Your task to perform on an android device: Open location settings Image 0: 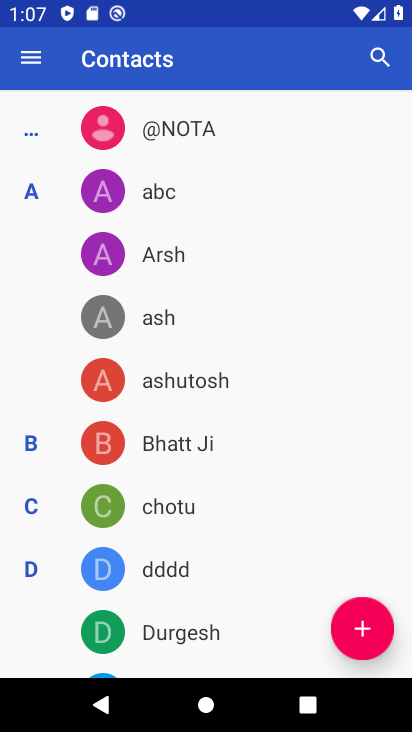
Step 0: press home button
Your task to perform on an android device: Open location settings Image 1: 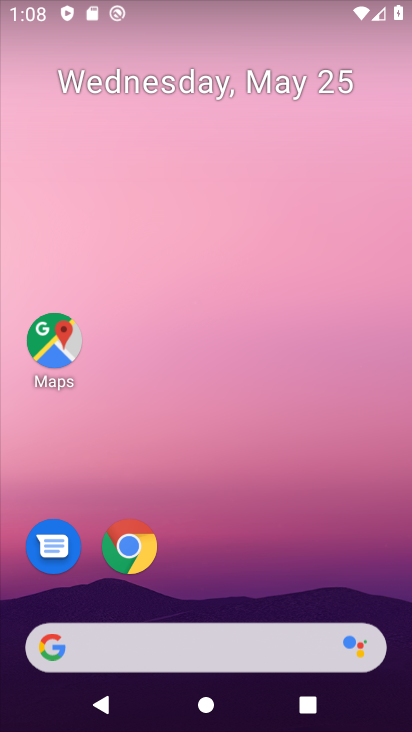
Step 1: drag from (375, 562) to (372, 130)
Your task to perform on an android device: Open location settings Image 2: 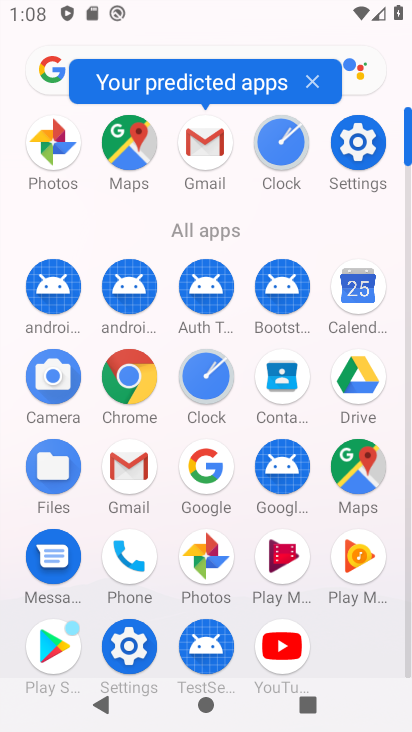
Step 2: click (369, 151)
Your task to perform on an android device: Open location settings Image 3: 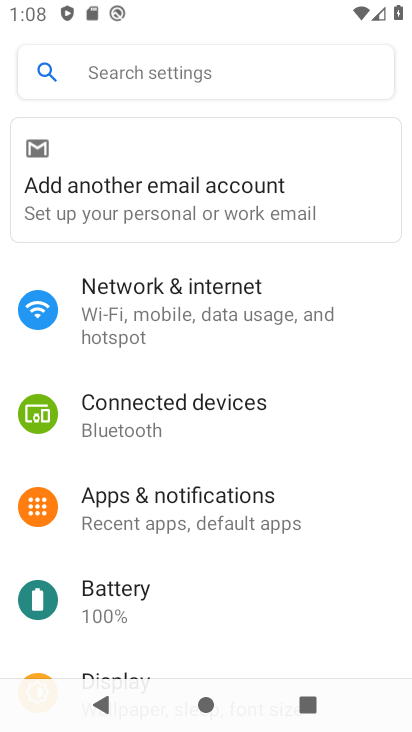
Step 3: drag from (345, 546) to (348, 377)
Your task to perform on an android device: Open location settings Image 4: 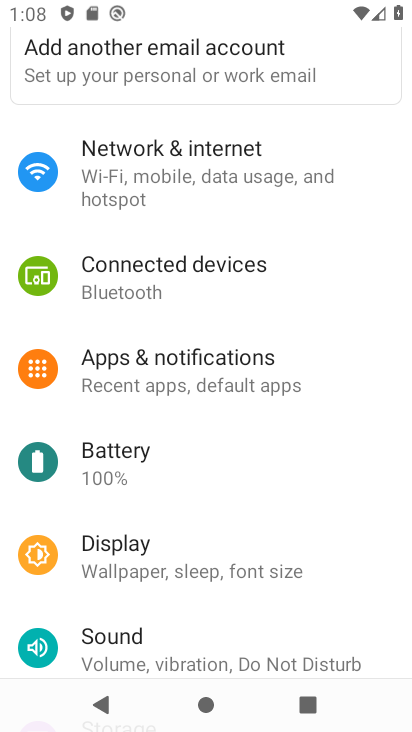
Step 4: drag from (355, 588) to (347, 411)
Your task to perform on an android device: Open location settings Image 5: 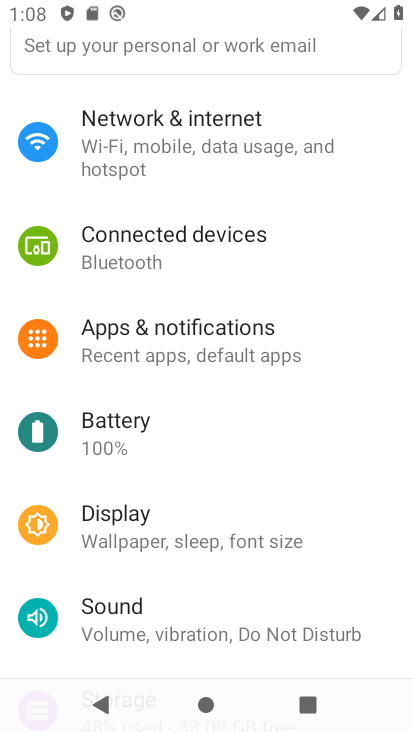
Step 5: drag from (361, 638) to (359, 441)
Your task to perform on an android device: Open location settings Image 6: 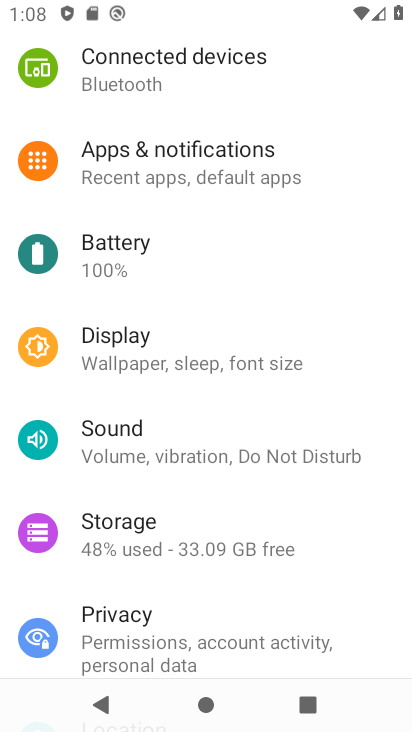
Step 6: drag from (360, 622) to (370, 432)
Your task to perform on an android device: Open location settings Image 7: 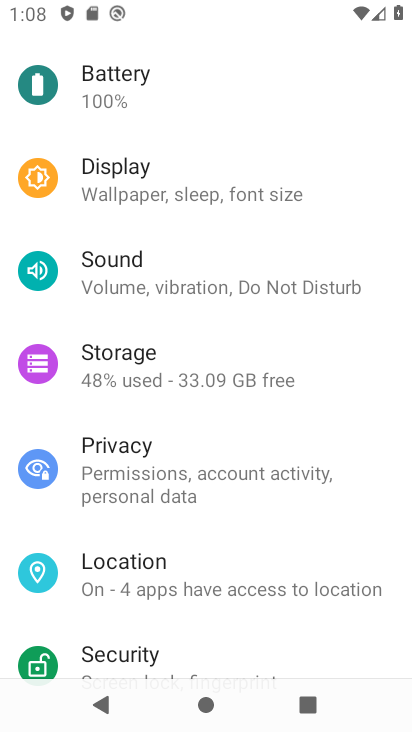
Step 7: drag from (357, 629) to (367, 439)
Your task to perform on an android device: Open location settings Image 8: 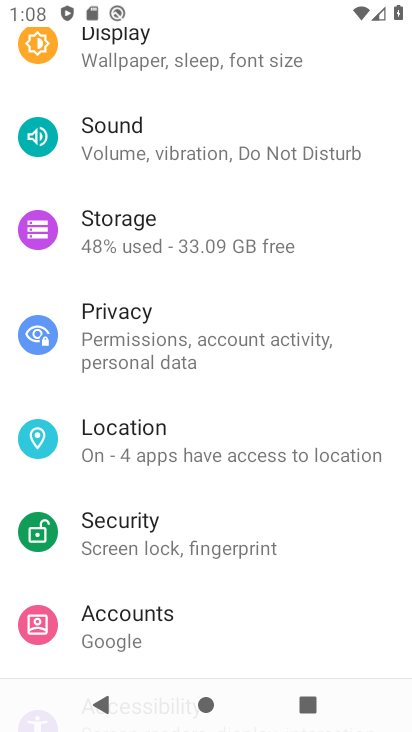
Step 8: drag from (357, 617) to (366, 405)
Your task to perform on an android device: Open location settings Image 9: 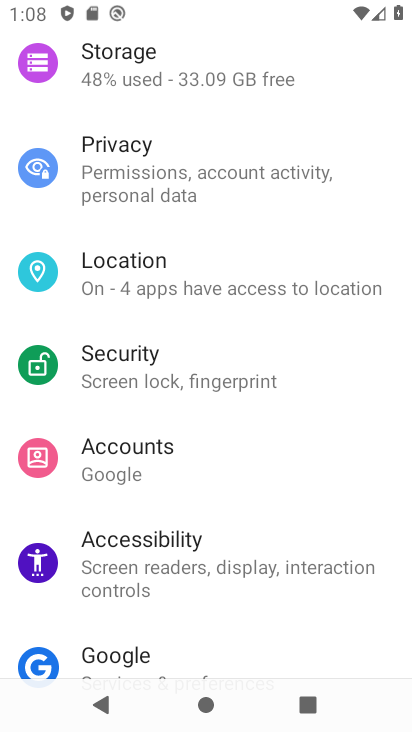
Step 9: drag from (352, 624) to (367, 403)
Your task to perform on an android device: Open location settings Image 10: 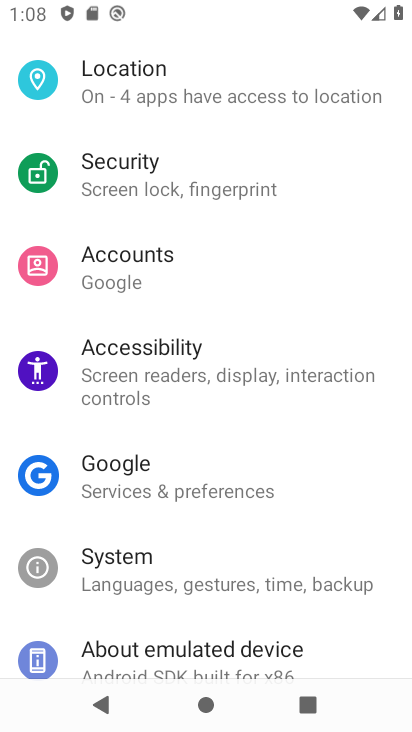
Step 10: drag from (351, 641) to (355, 391)
Your task to perform on an android device: Open location settings Image 11: 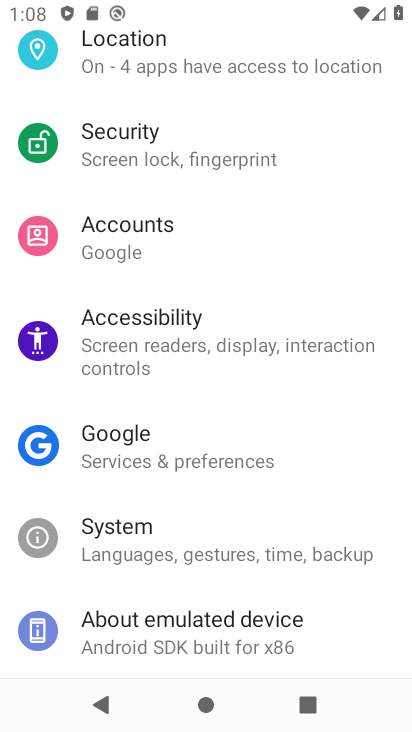
Step 11: drag from (349, 605) to (341, 408)
Your task to perform on an android device: Open location settings Image 12: 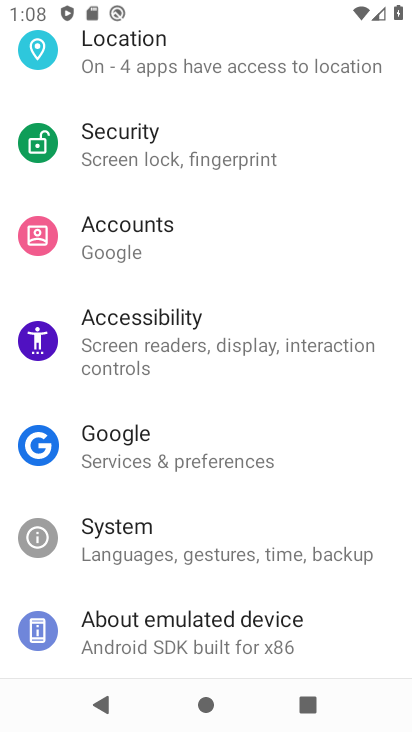
Step 12: drag from (341, 266) to (341, 424)
Your task to perform on an android device: Open location settings Image 13: 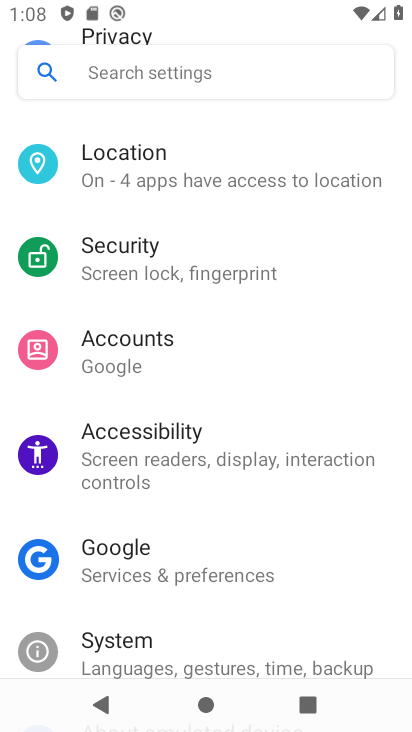
Step 13: drag from (339, 273) to (339, 446)
Your task to perform on an android device: Open location settings Image 14: 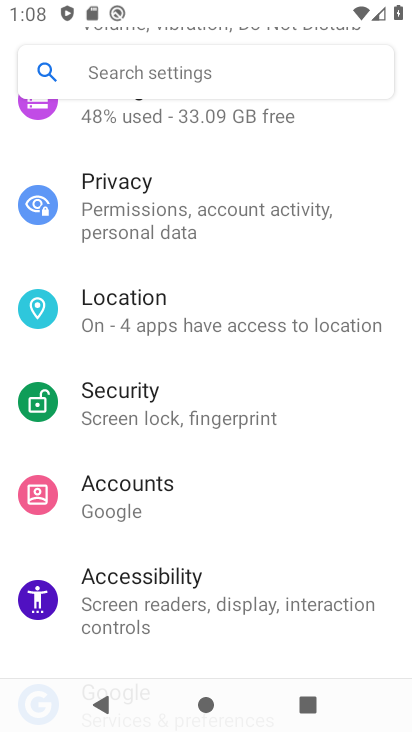
Step 14: drag from (342, 259) to (342, 455)
Your task to perform on an android device: Open location settings Image 15: 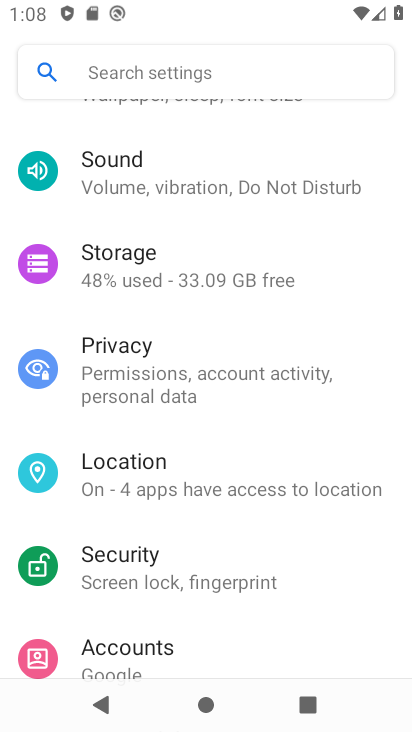
Step 15: drag from (348, 297) to (352, 440)
Your task to perform on an android device: Open location settings Image 16: 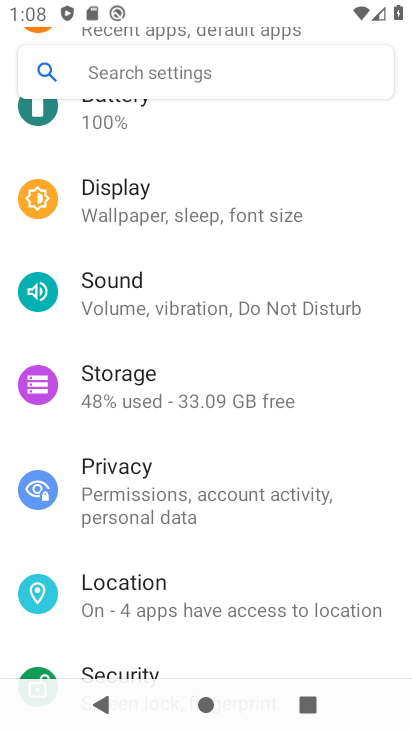
Step 16: drag from (345, 243) to (335, 398)
Your task to perform on an android device: Open location settings Image 17: 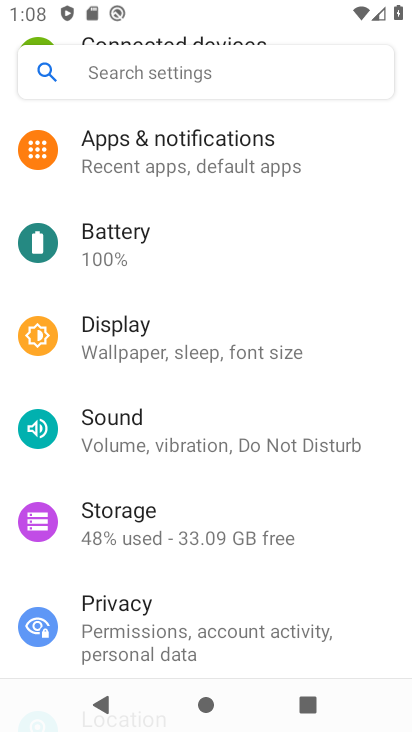
Step 17: drag from (344, 220) to (347, 412)
Your task to perform on an android device: Open location settings Image 18: 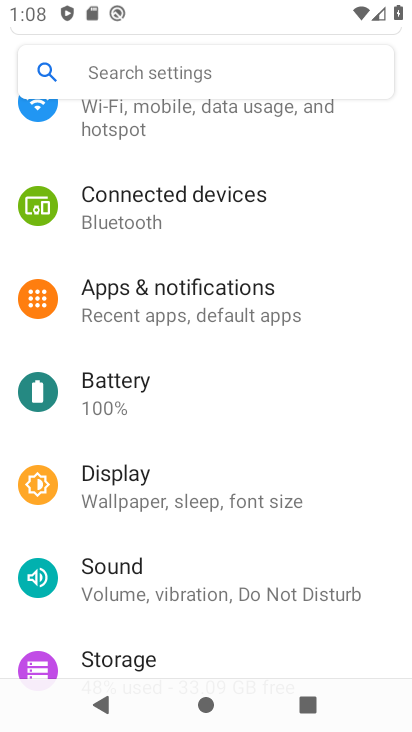
Step 18: drag from (319, 193) to (319, 360)
Your task to perform on an android device: Open location settings Image 19: 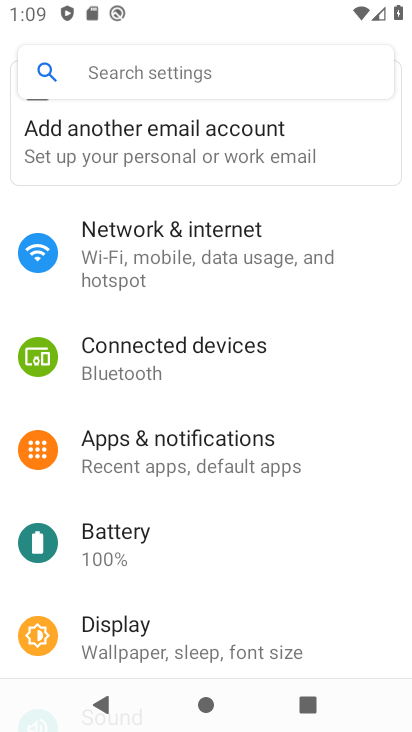
Step 19: drag from (358, 197) to (358, 345)
Your task to perform on an android device: Open location settings Image 20: 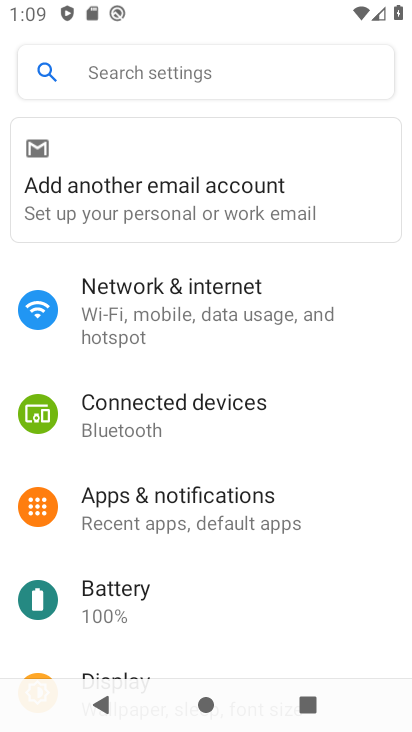
Step 20: drag from (345, 526) to (358, 364)
Your task to perform on an android device: Open location settings Image 21: 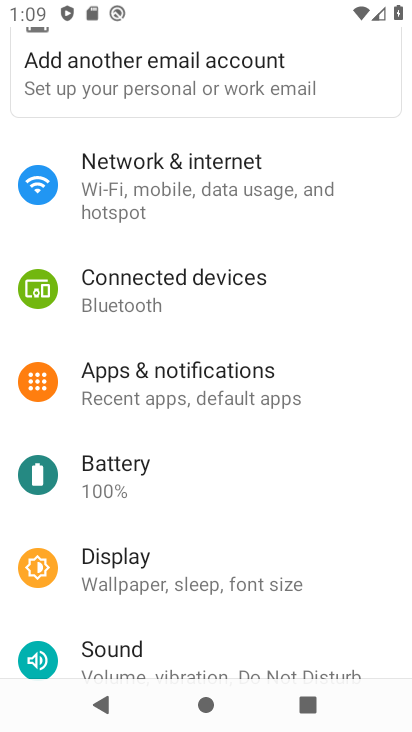
Step 21: drag from (360, 542) to (367, 351)
Your task to perform on an android device: Open location settings Image 22: 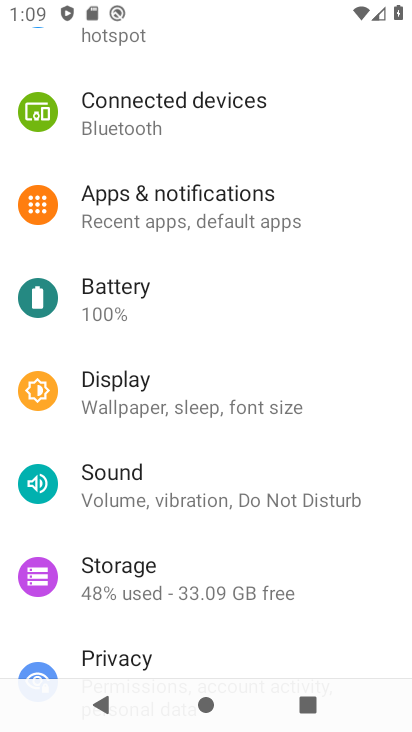
Step 22: drag from (311, 586) to (322, 386)
Your task to perform on an android device: Open location settings Image 23: 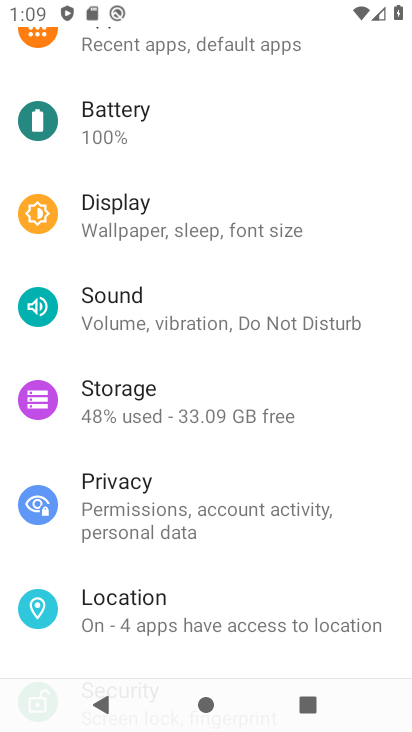
Step 23: drag from (326, 584) to (332, 422)
Your task to perform on an android device: Open location settings Image 24: 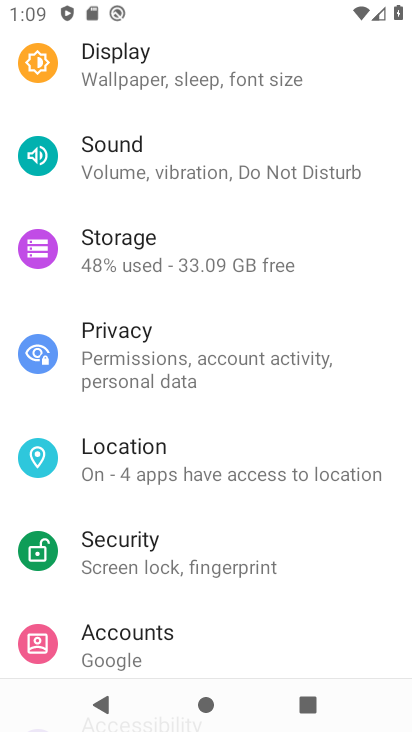
Step 24: click (271, 453)
Your task to perform on an android device: Open location settings Image 25: 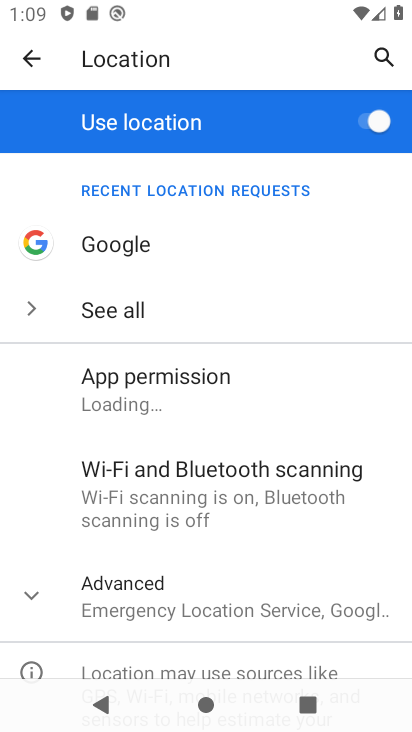
Step 25: task complete